Your task to perform on an android device: Go to location settings Image 0: 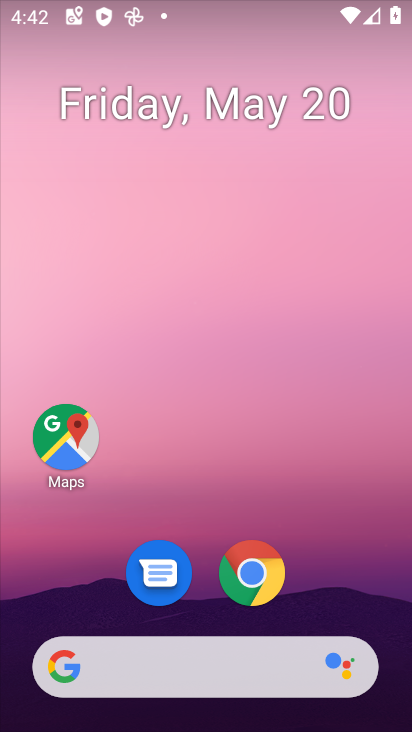
Step 0: drag from (392, 646) to (345, 116)
Your task to perform on an android device: Go to location settings Image 1: 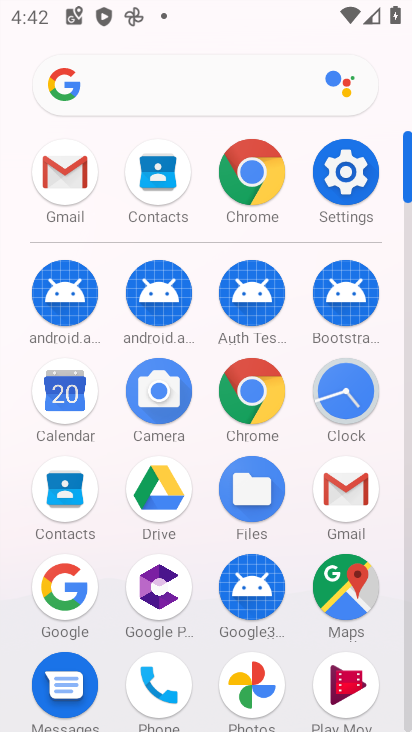
Step 1: click (408, 708)
Your task to perform on an android device: Go to location settings Image 2: 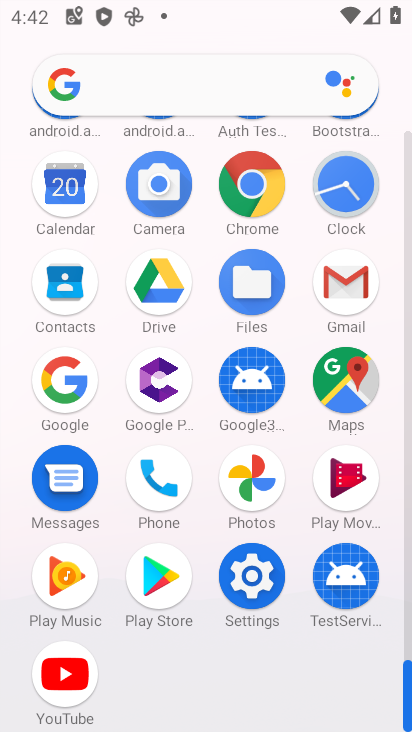
Step 2: click (254, 577)
Your task to perform on an android device: Go to location settings Image 3: 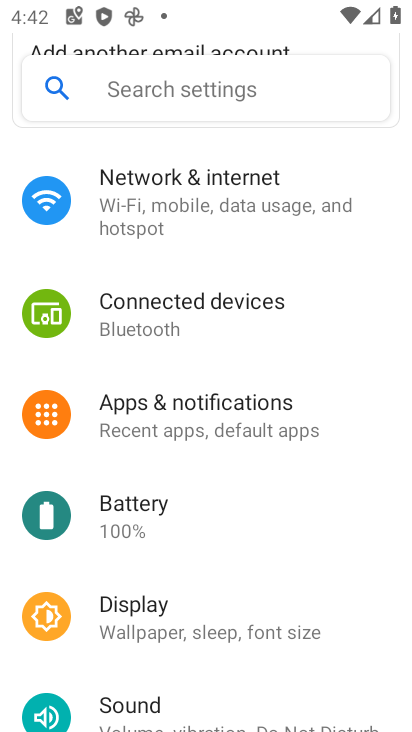
Step 3: drag from (365, 664) to (303, 265)
Your task to perform on an android device: Go to location settings Image 4: 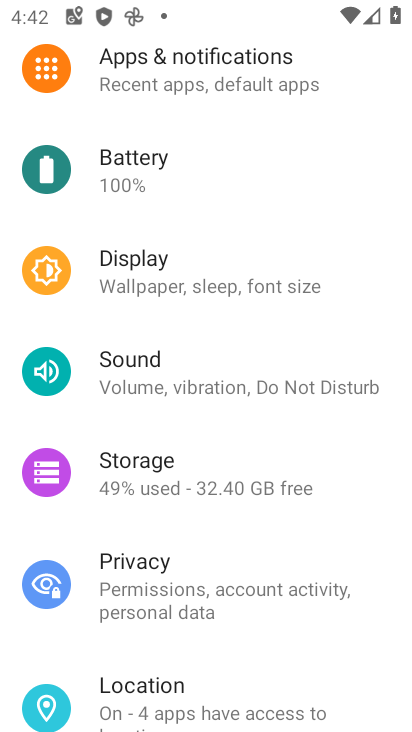
Step 4: drag from (373, 640) to (288, 181)
Your task to perform on an android device: Go to location settings Image 5: 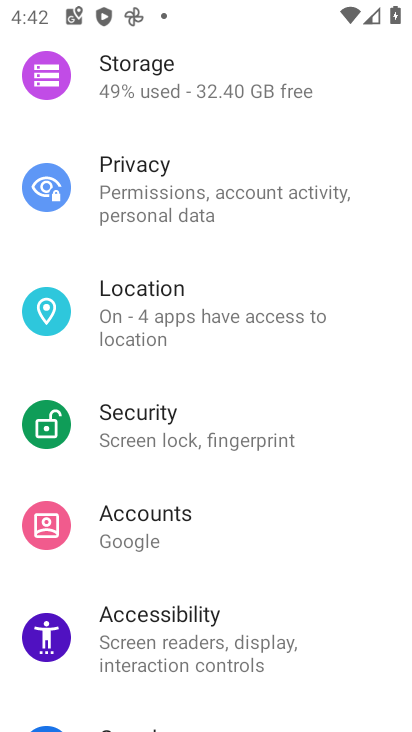
Step 5: click (135, 300)
Your task to perform on an android device: Go to location settings Image 6: 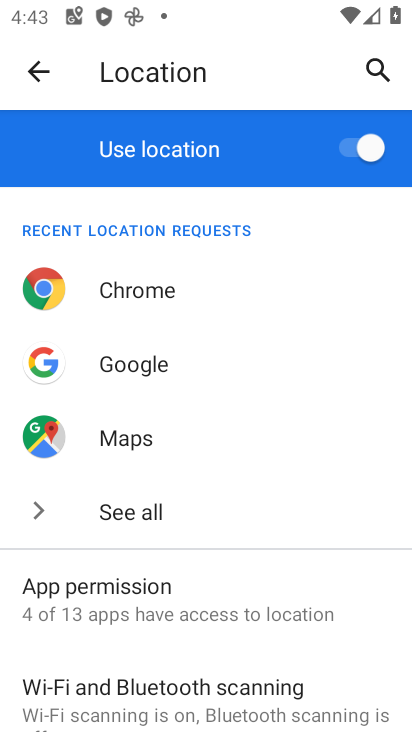
Step 6: drag from (276, 590) to (264, 206)
Your task to perform on an android device: Go to location settings Image 7: 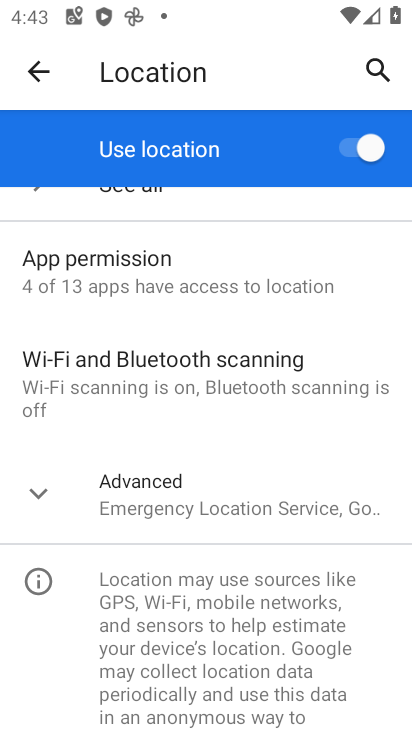
Step 7: drag from (324, 529) to (306, 300)
Your task to perform on an android device: Go to location settings Image 8: 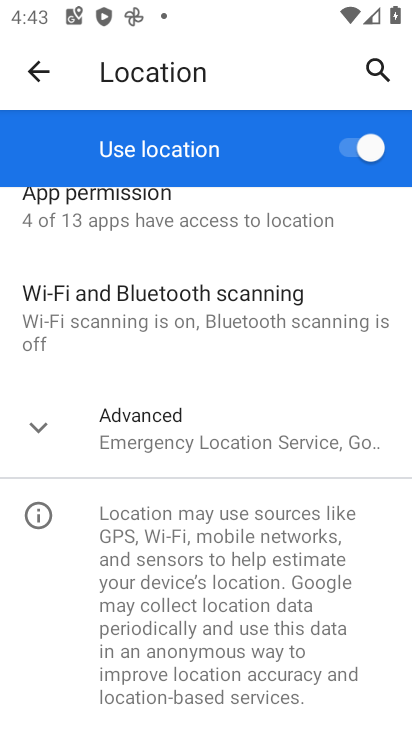
Step 8: click (32, 429)
Your task to perform on an android device: Go to location settings Image 9: 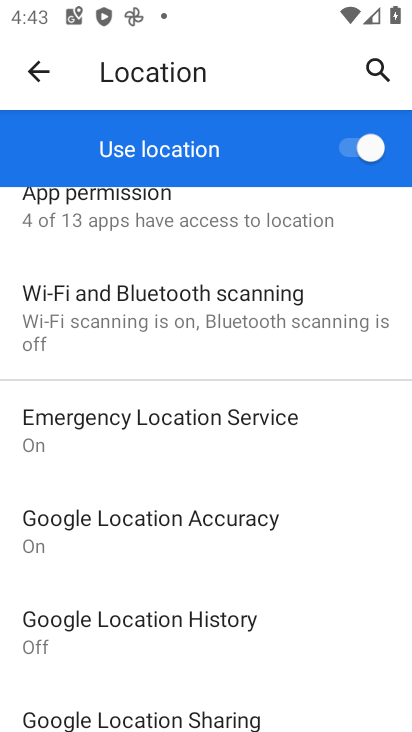
Step 9: task complete